Your task to perform on an android device: Search for seafood restaurants on Google Maps Image 0: 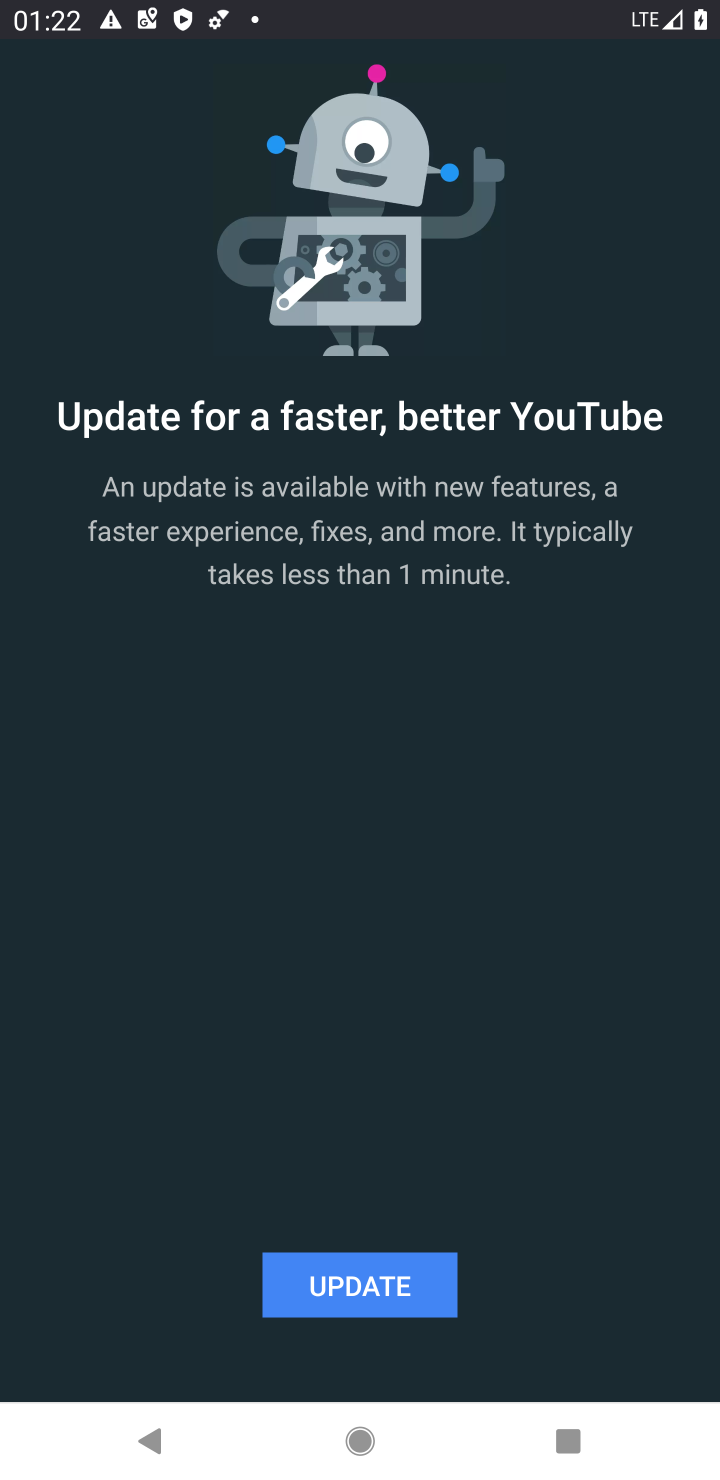
Step 0: click (157, 1436)
Your task to perform on an android device: Search for seafood restaurants on Google Maps Image 1: 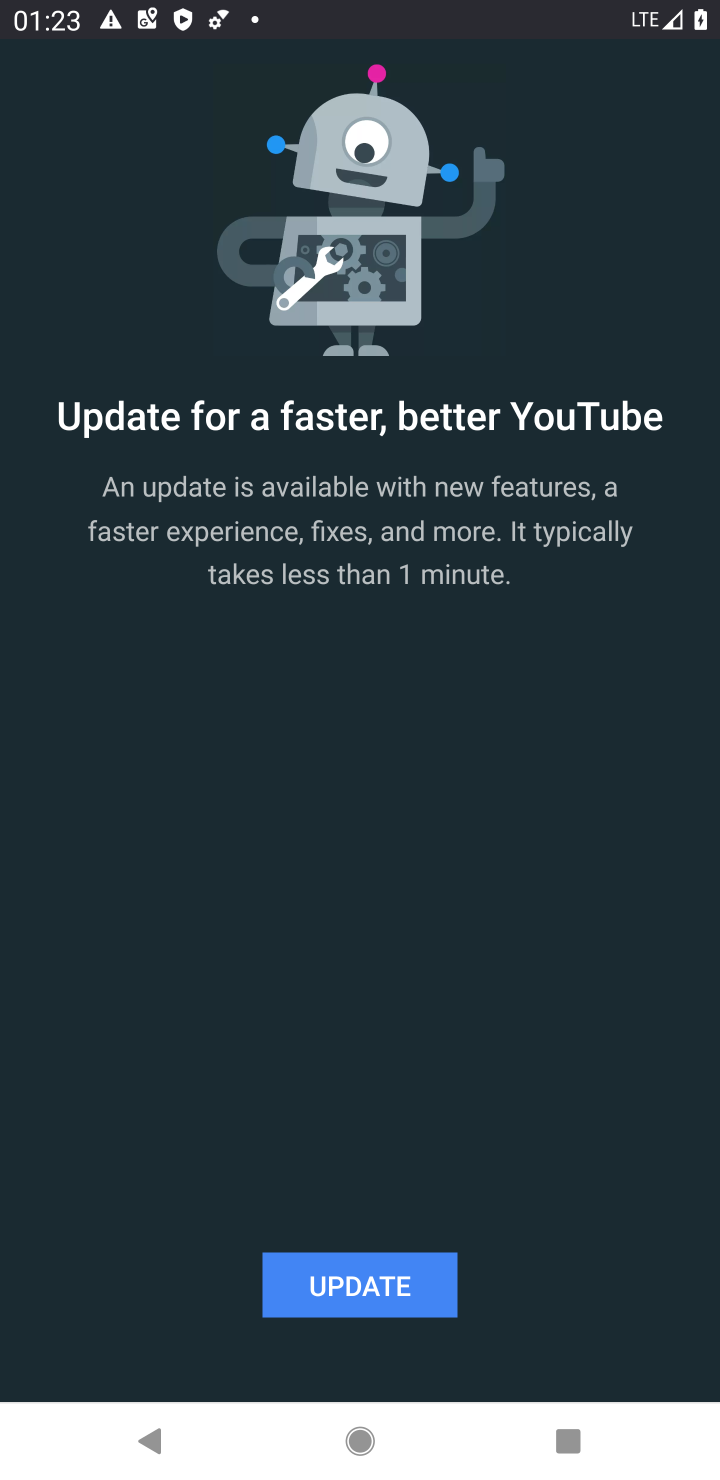
Step 1: click (154, 1442)
Your task to perform on an android device: Search for seafood restaurants on Google Maps Image 2: 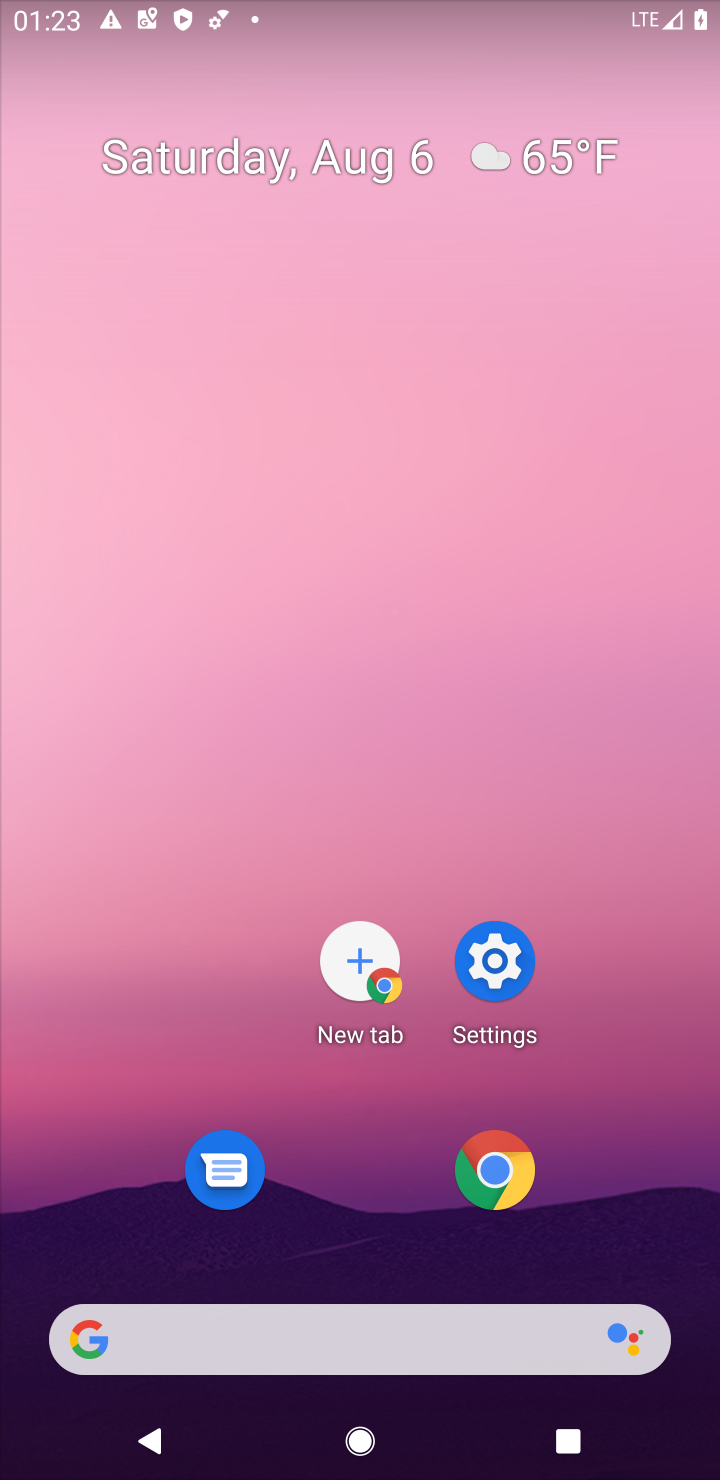
Step 2: drag from (376, 1200) to (486, 332)
Your task to perform on an android device: Search for seafood restaurants on Google Maps Image 3: 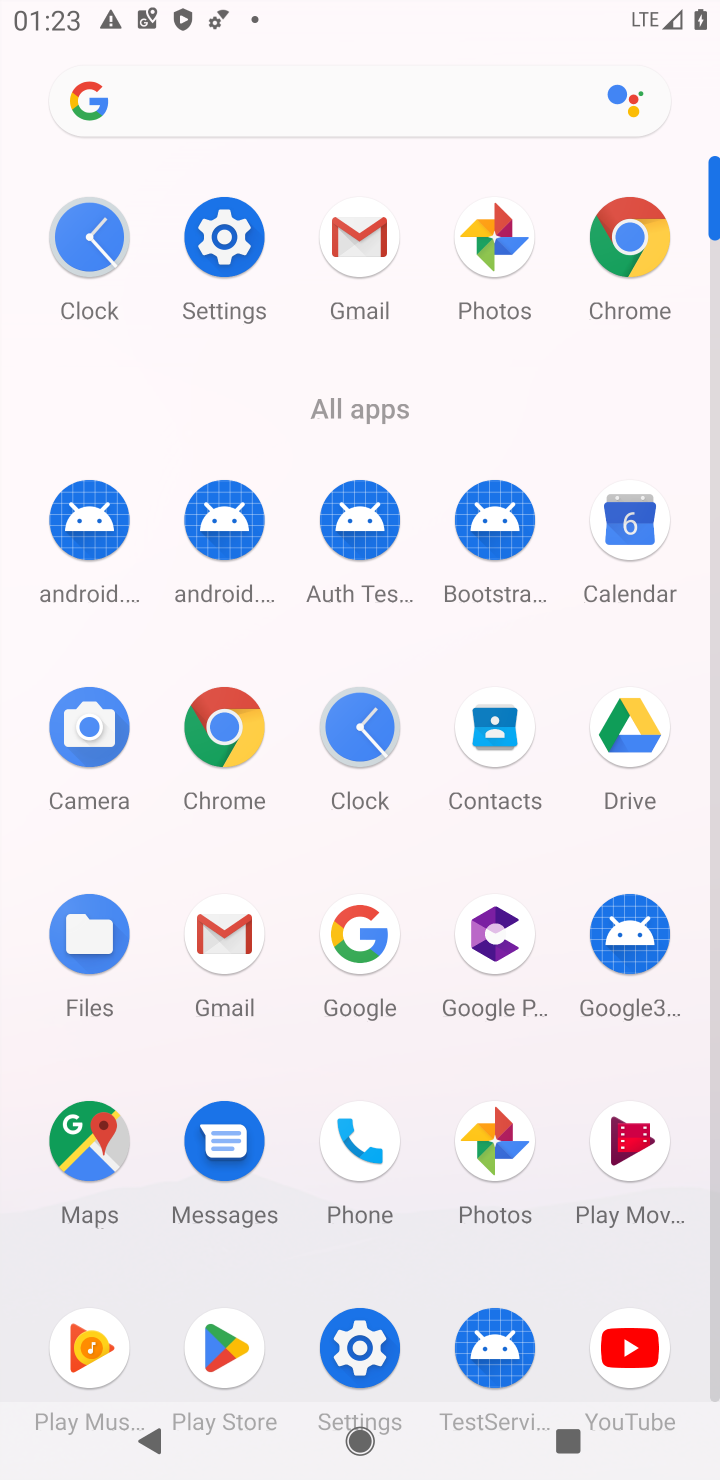
Step 3: click (453, 110)
Your task to perform on an android device: Search for seafood restaurants on Google Maps Image 4: 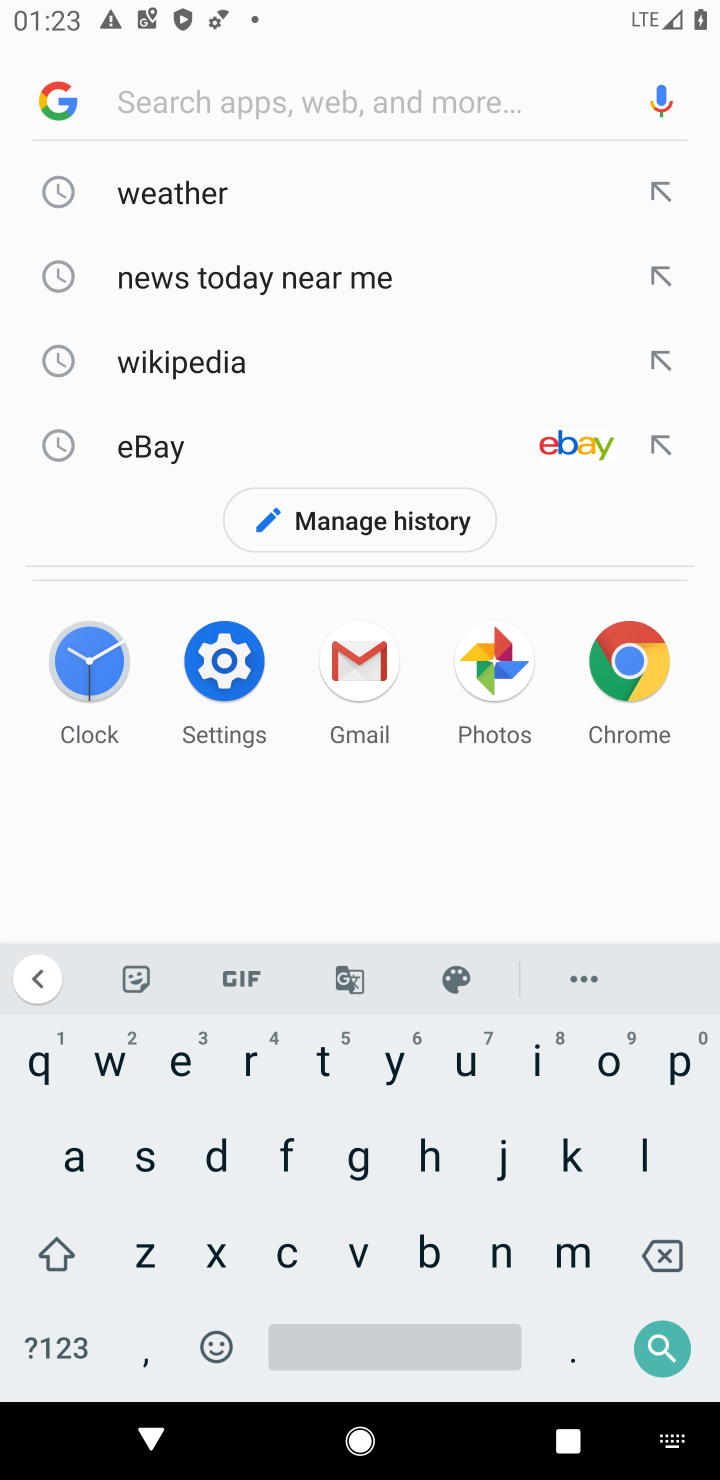
Step 4: click (569, 1250)
Your task to perform on an android device: Search for seafood restaurants on Google Maps Image 5: 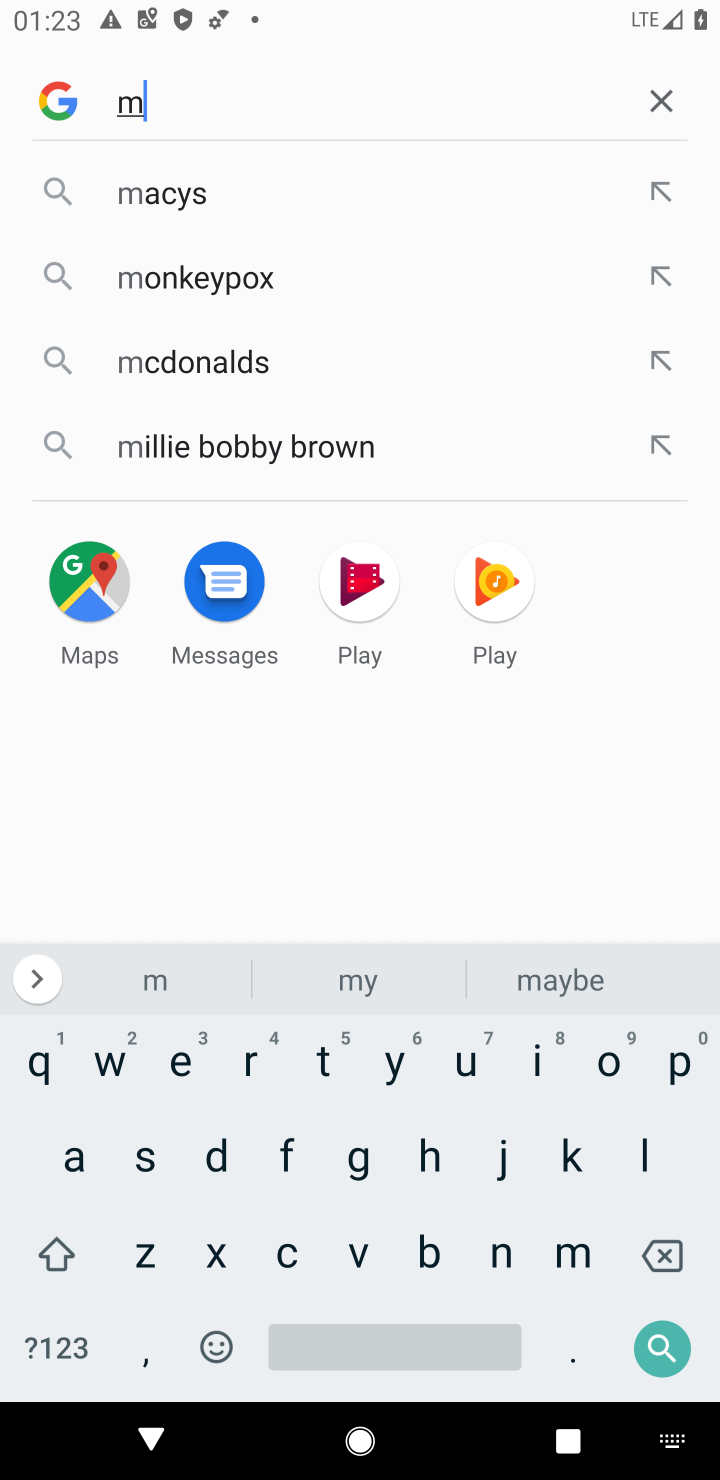
Step 5: click (108, 585)
Your task to perform on an android device: Search for seafood restaurants on Google Maps Image 6: 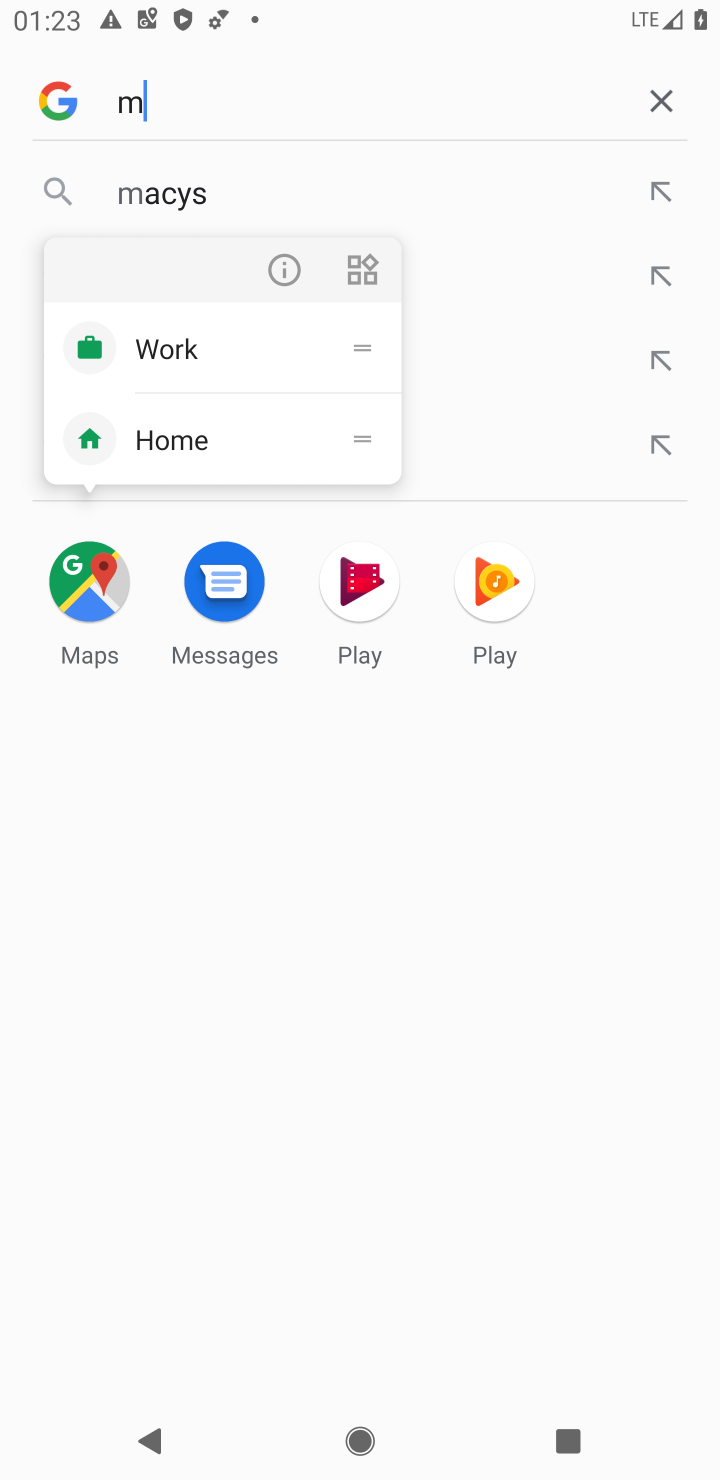
Step 6: click (98, 602)
Your task to perform on an android device: Search for seafood restaurants on Google Maps Image 7: 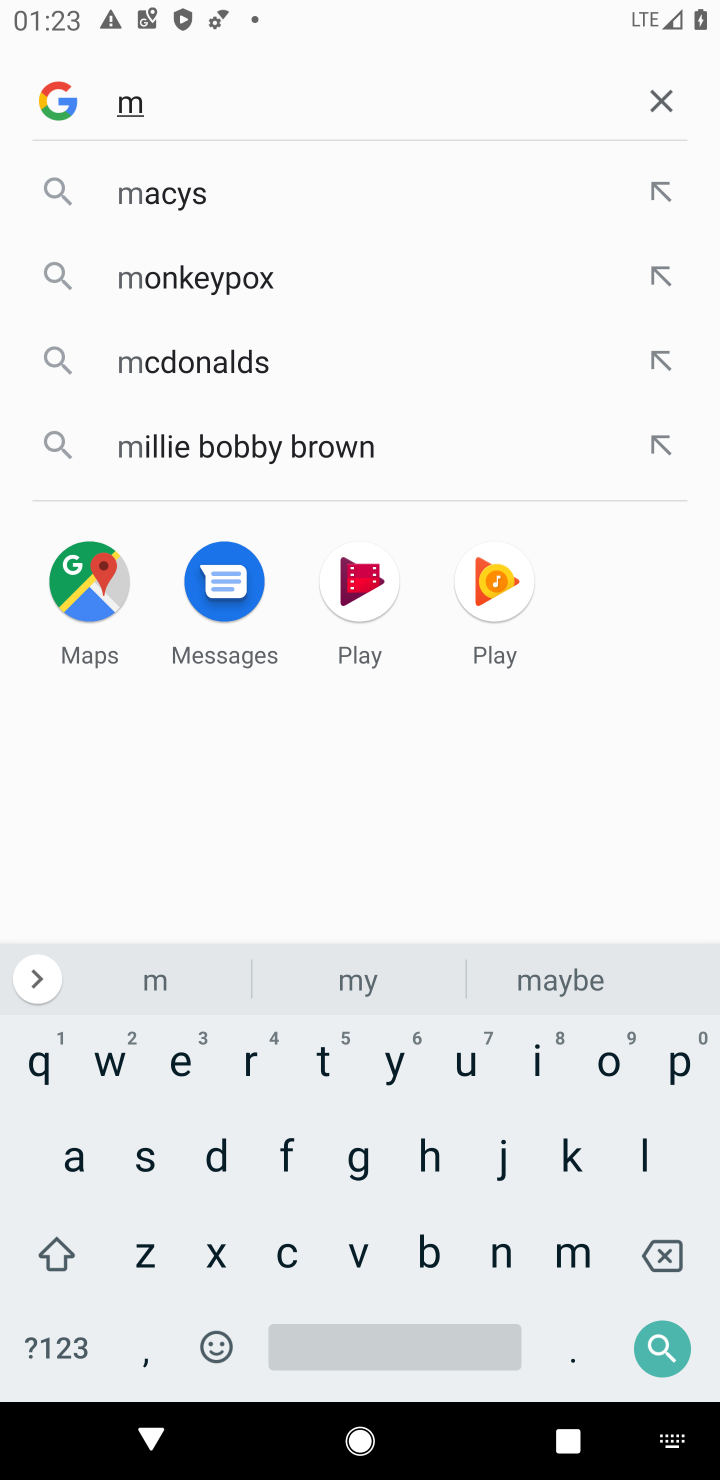
Step 7: click (103, 583)
Your task to perform on an android device: Search for seafood restaurants on Google Maps Image 8: 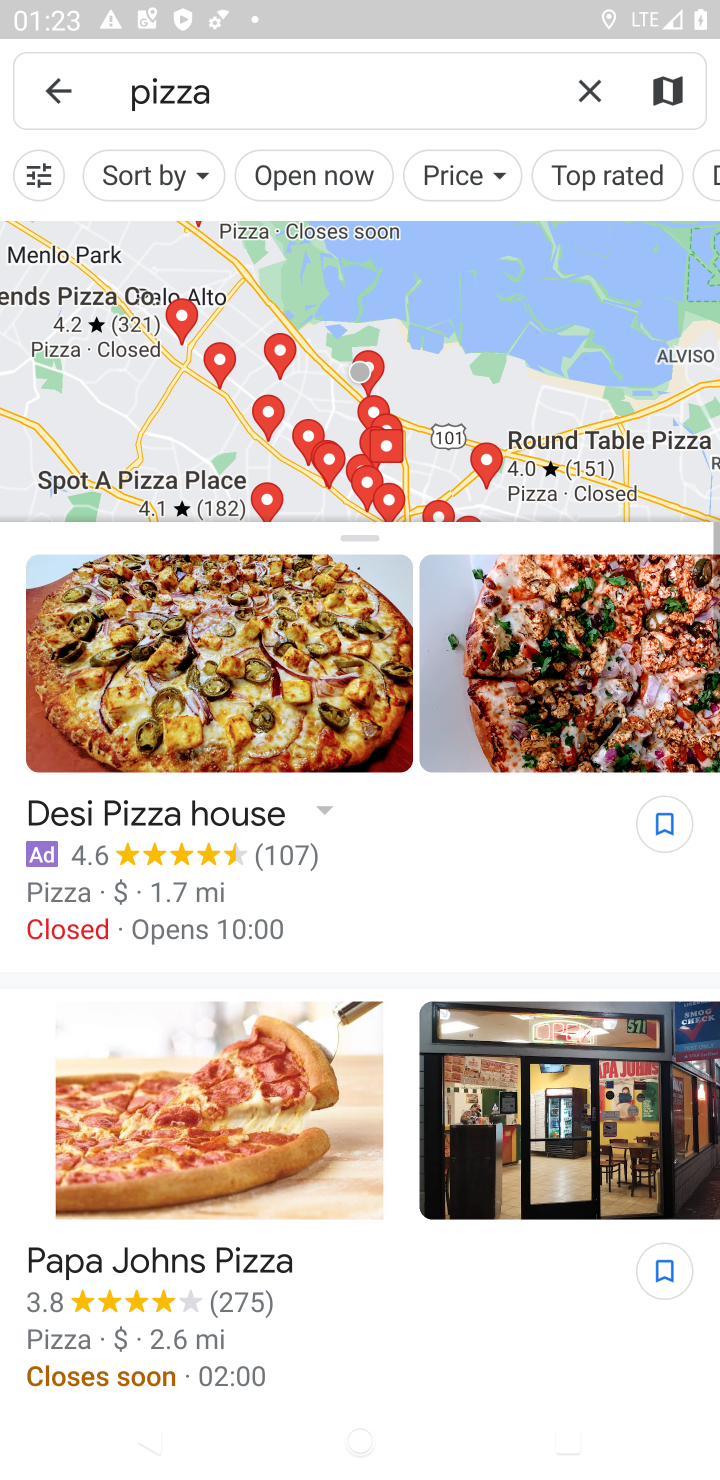
Step 8: click (581, 90)
Your task to perform on an android device: Search for seafood restaurants on Google Maps Image 9: 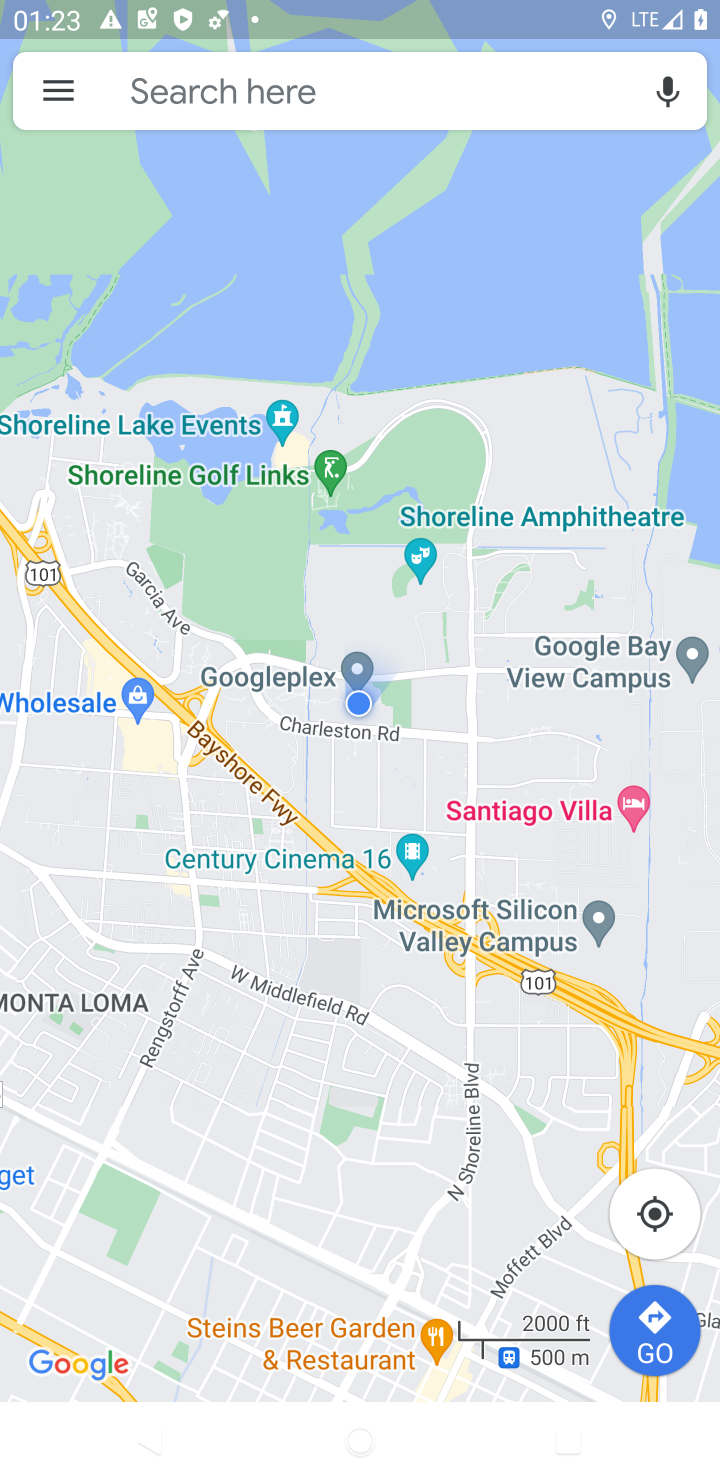
Step 9: click (378, 107)
Your task to perform on an android device: Search for seafood restaurants on Google Maps Image 10: 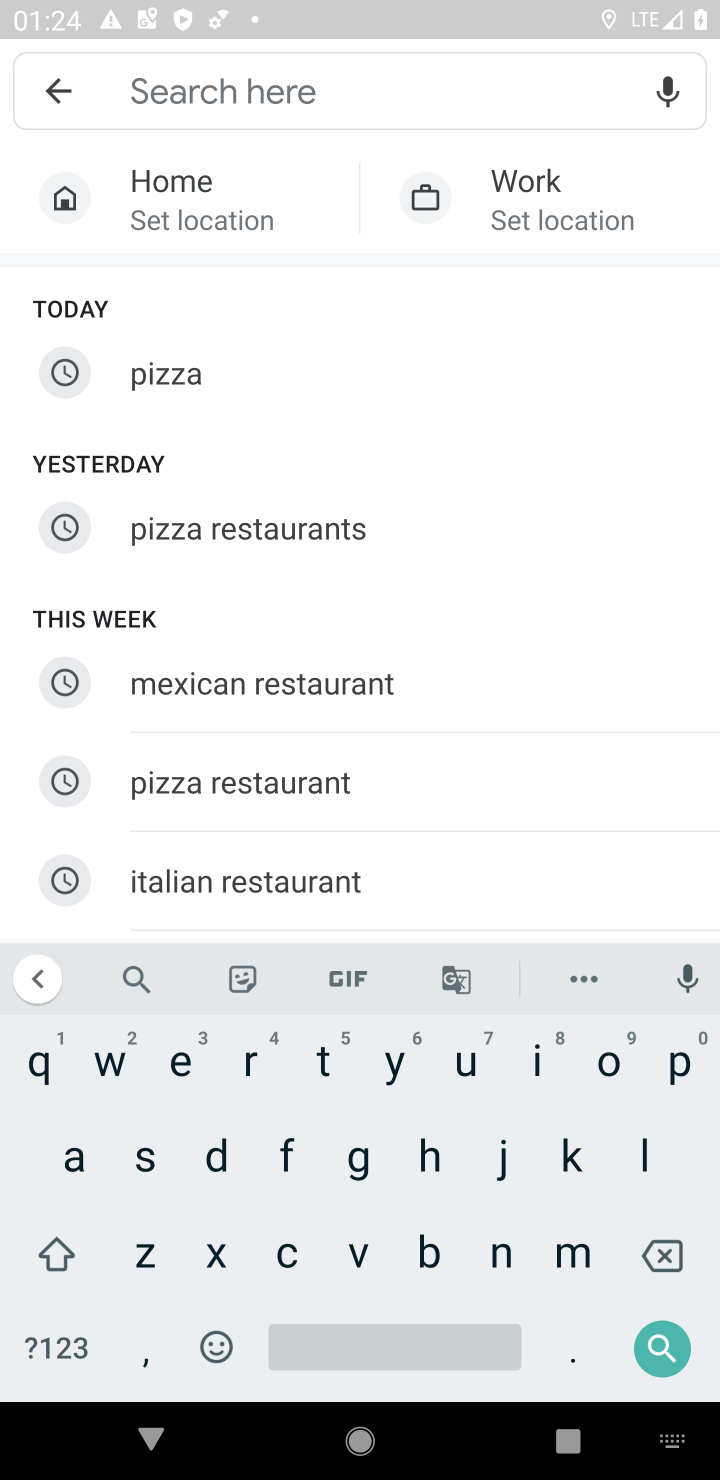
Step 10: click (144, 1147)
Your task to perform on an android device: Search for seafood restaurants on Google Maps Image 11: 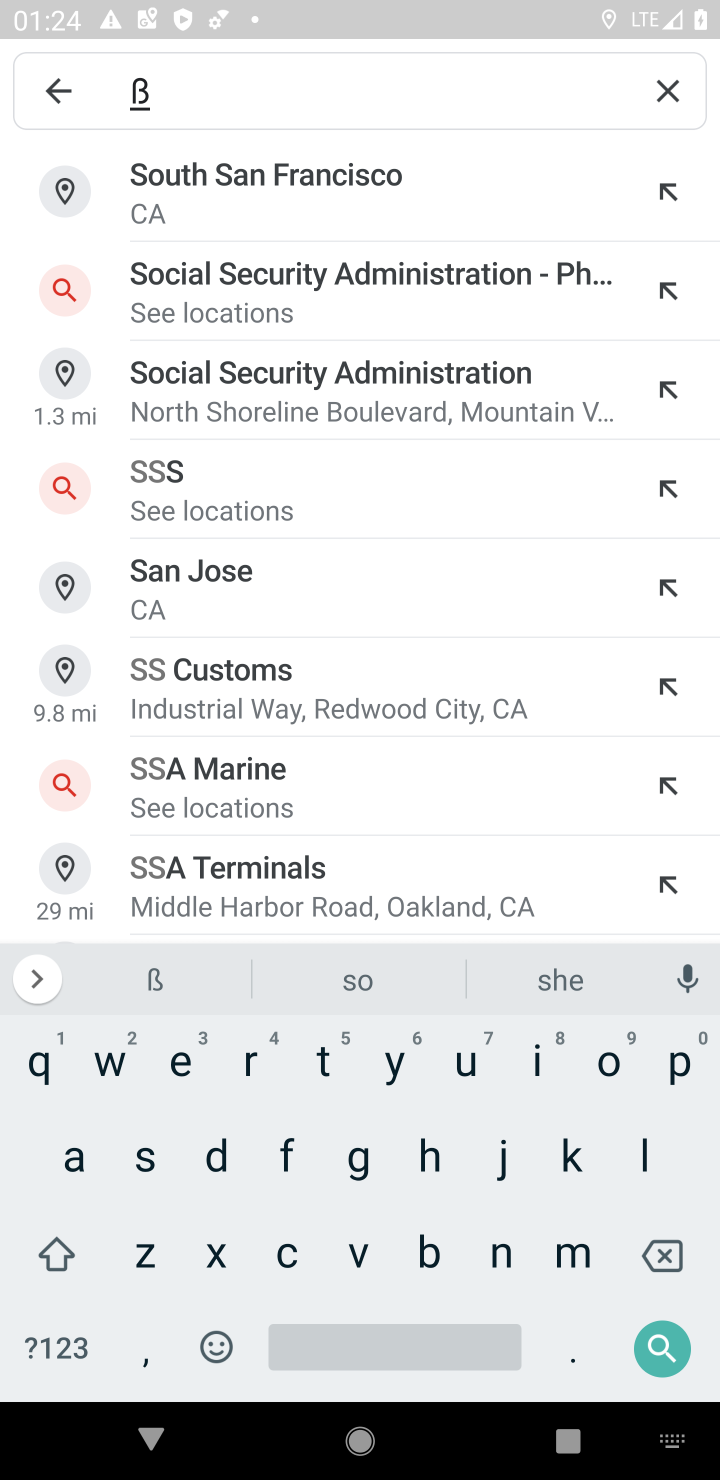
Step 11: click (656, 1268)
Your task to perform on an android device: Search for seafood restaurants on Google Maps Image 12: 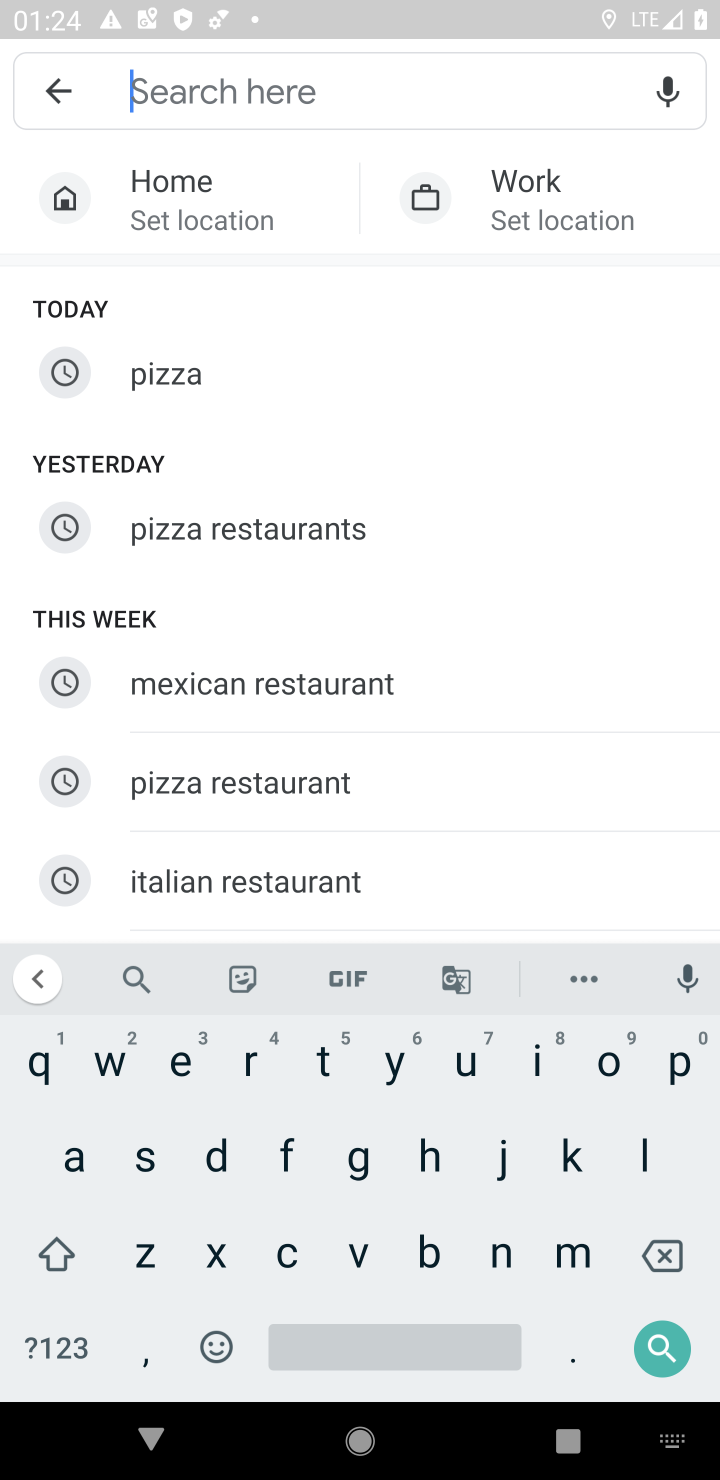
Step 12: click (133, 1157)
Your task to perform on an android device: Search for seafood restaurants on Google Maps Image 13: 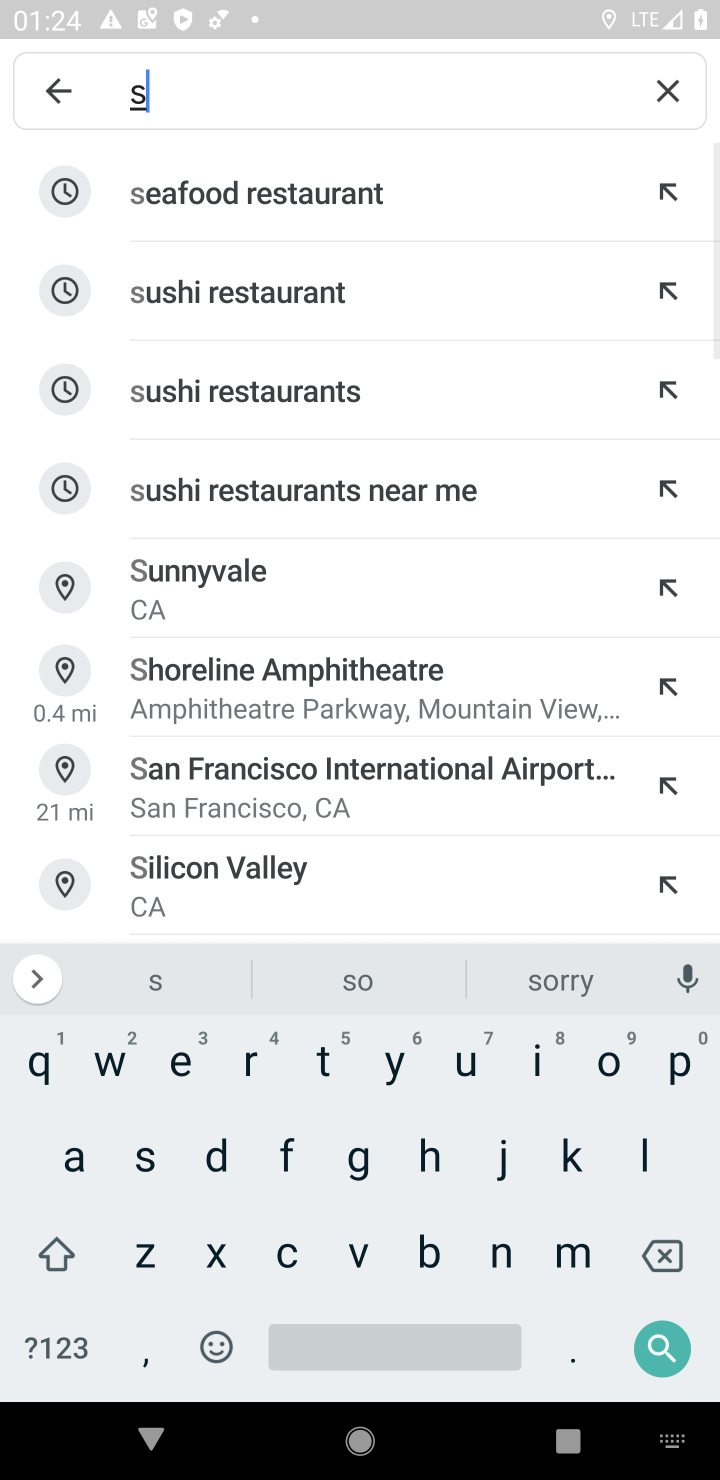
Step 13: click (181, 1054)
Your task to perform on an android device: Search for seafood restaurants on Google Maps Image 14: 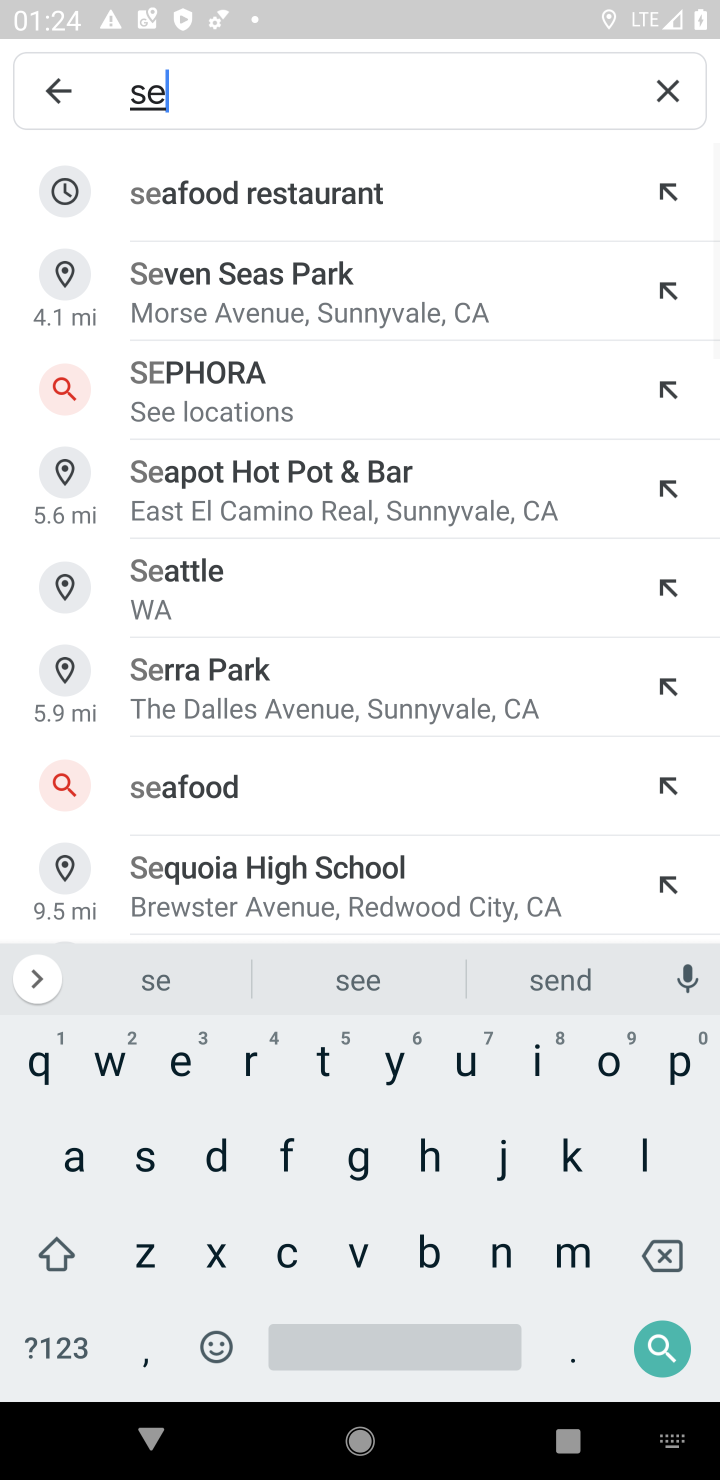
Step 14: click (71, 1160)
Your task to perform on an android device: Search for seafood restaurants on Google Maps Image 15: 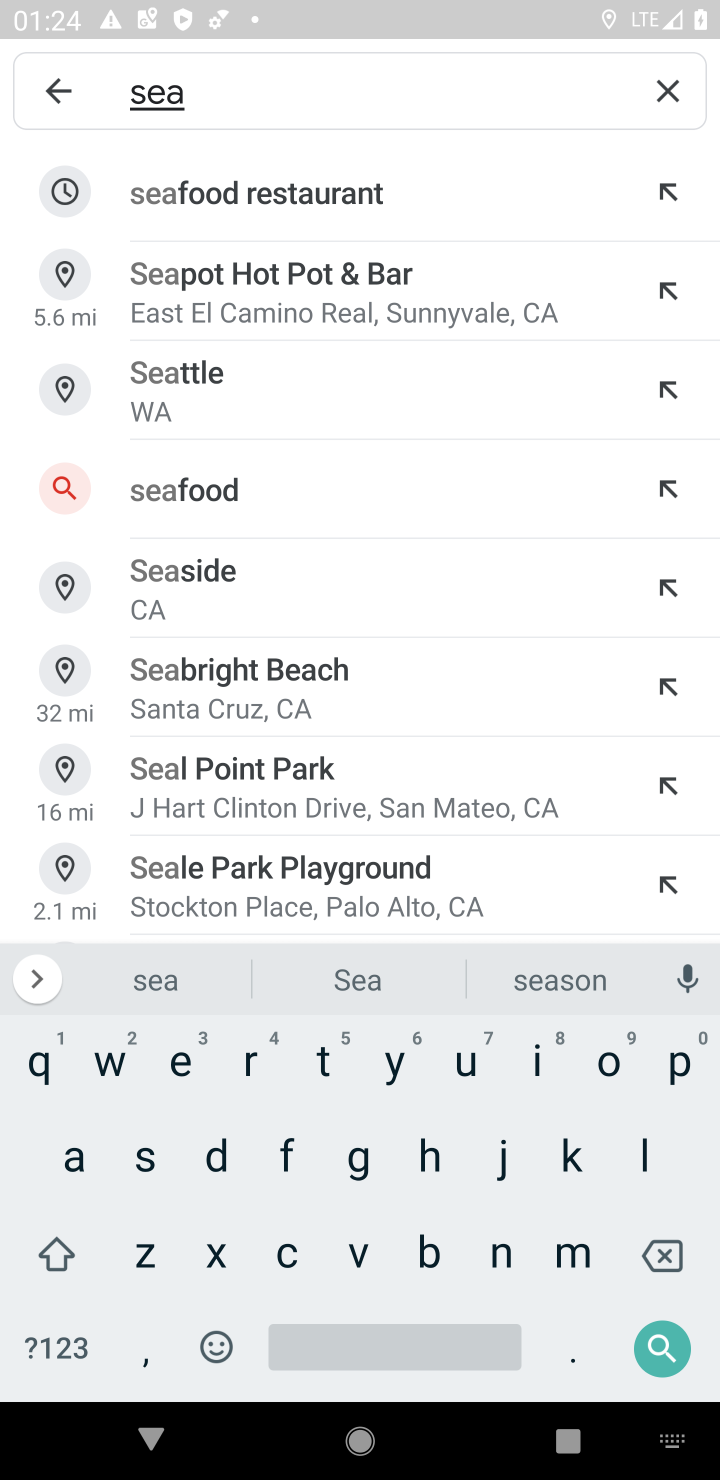
Step 15: click (345, 183)
Your task to perform on an android device: Search for seafood restaurants on Google Maps Image 16: 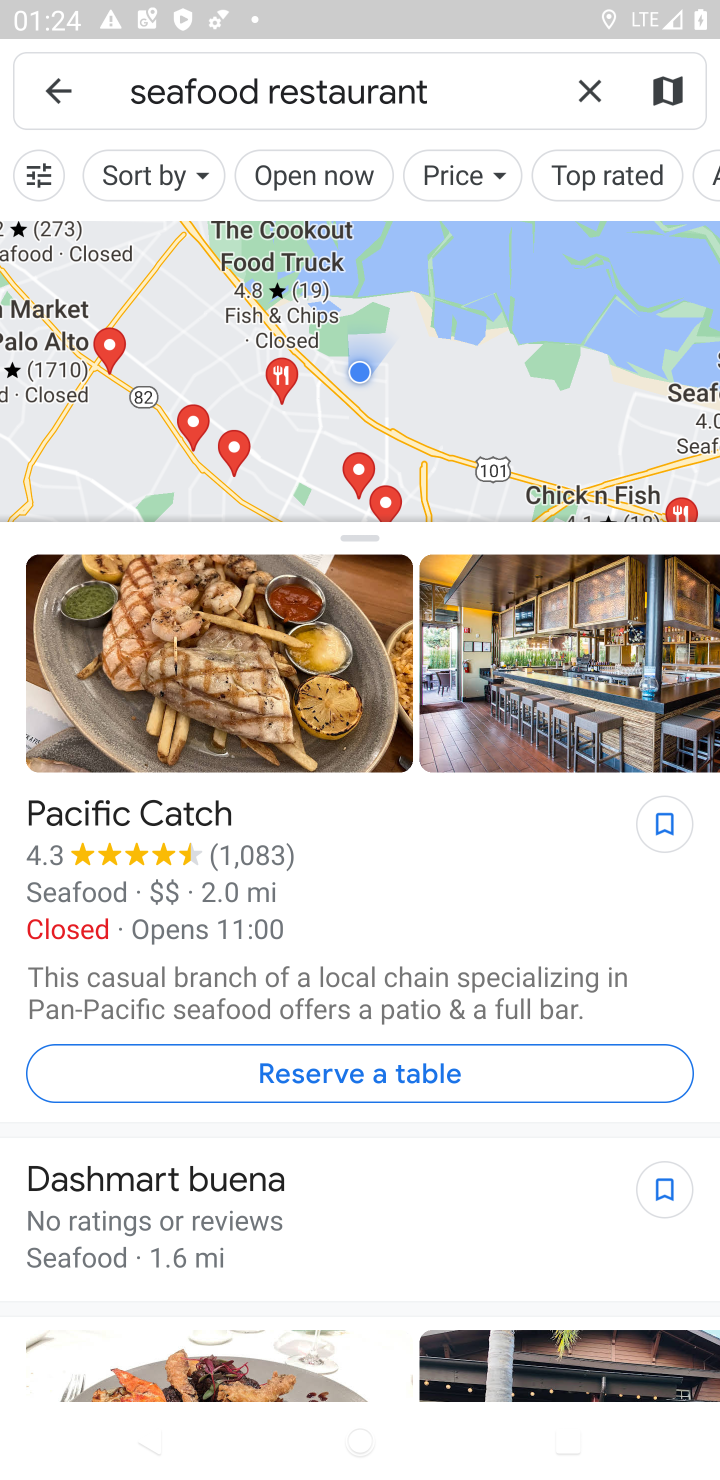
Step 16: task complete